Your task to perform on an android device: Open Amazon Image 0: 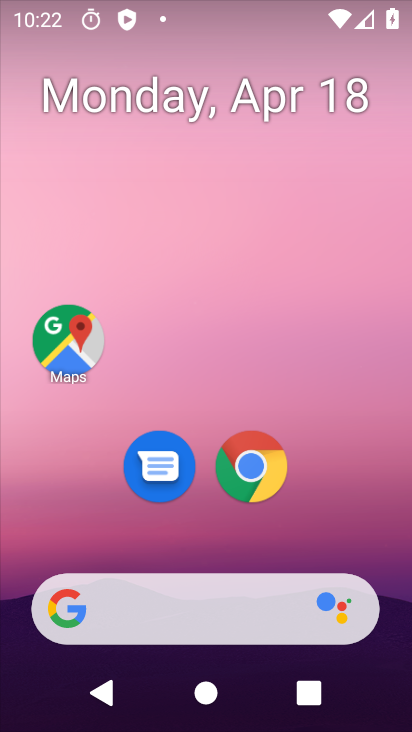
Step 0: drag from (260, 586) to (267, 179)
Your task to perform on an android device: Open Amazon Image 1: 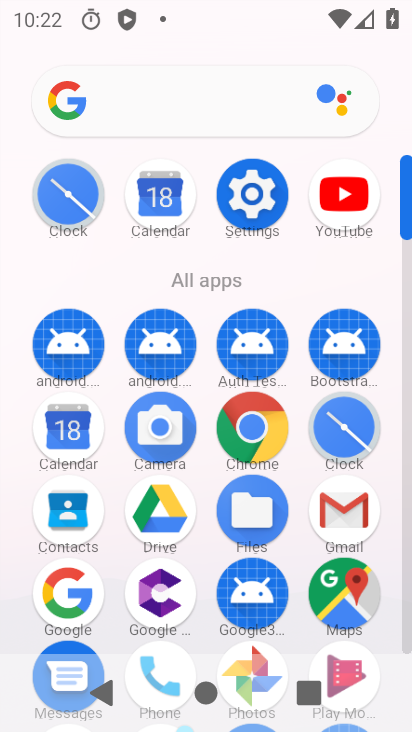
Step 1: click (254, 447)
Your task to perform on an android device: Open Amazon Image 2: 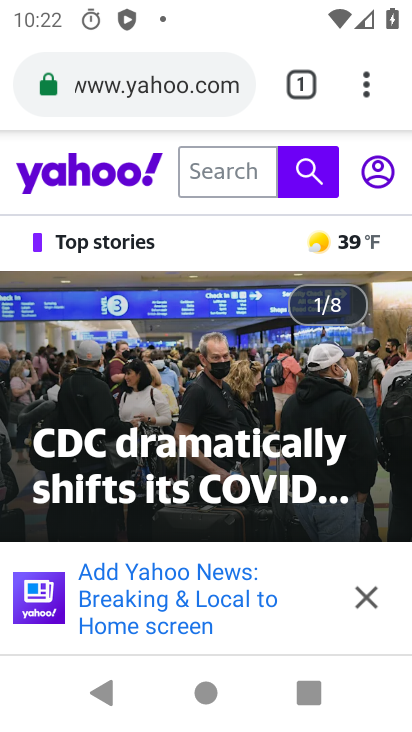
Step 2: drag from (299, 96) to (293, 197)
Your task to perform on an android device: Open Amazon Image 3: 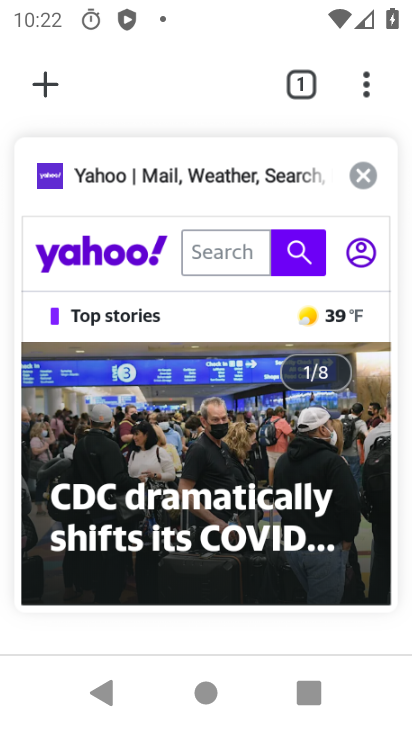
Step 3: click (50, 89)
Your task to perform on an android device: Open Amazon Image 4: 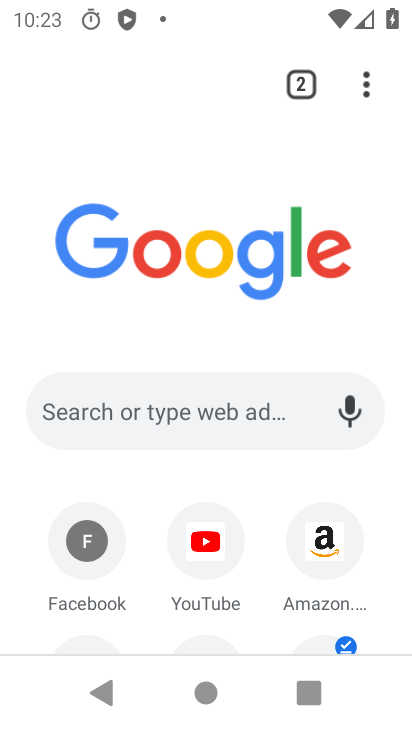
Step 4: click (322, 557)
Your task to perform on an android device: Open Amazon Image 5: 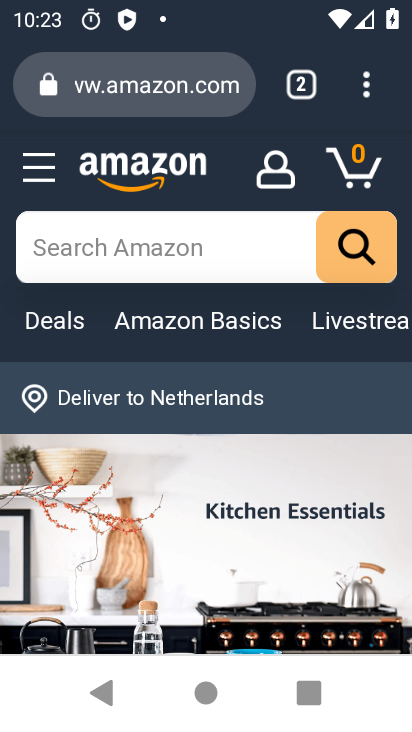
Step 5: task complete